Your task to perform on an android device: Clear all items from cart on newegg. Image 0: 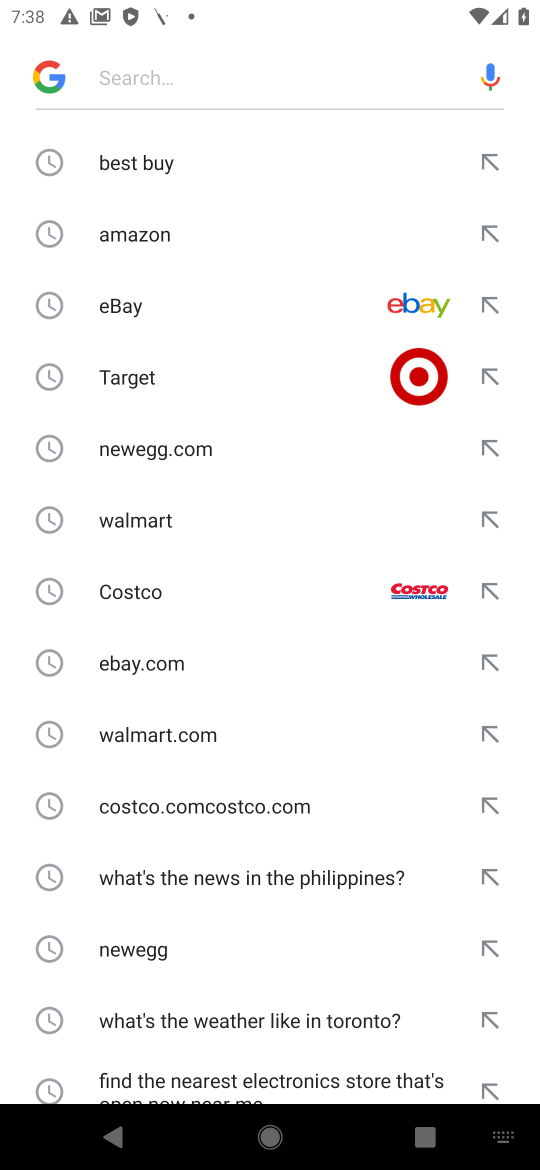
Step 0: click (145, 445)
Your task to perform on an android device: Clear all items from cart on newegg. Image 1: 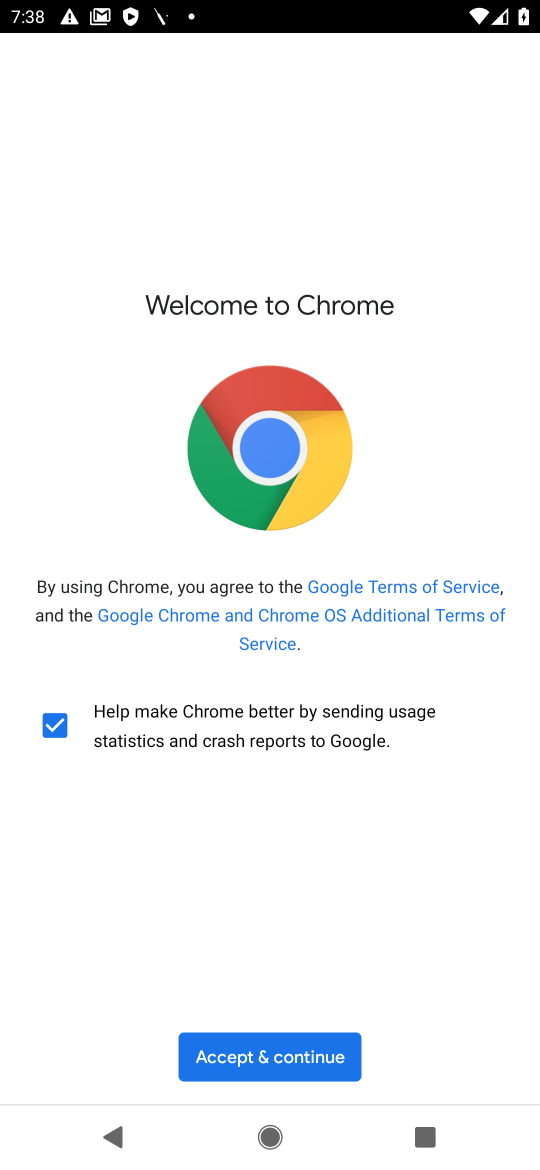
Step 1: click (435, 958)
Your task to perform on an android device: Clear all items from cart on newegg. Image 2: 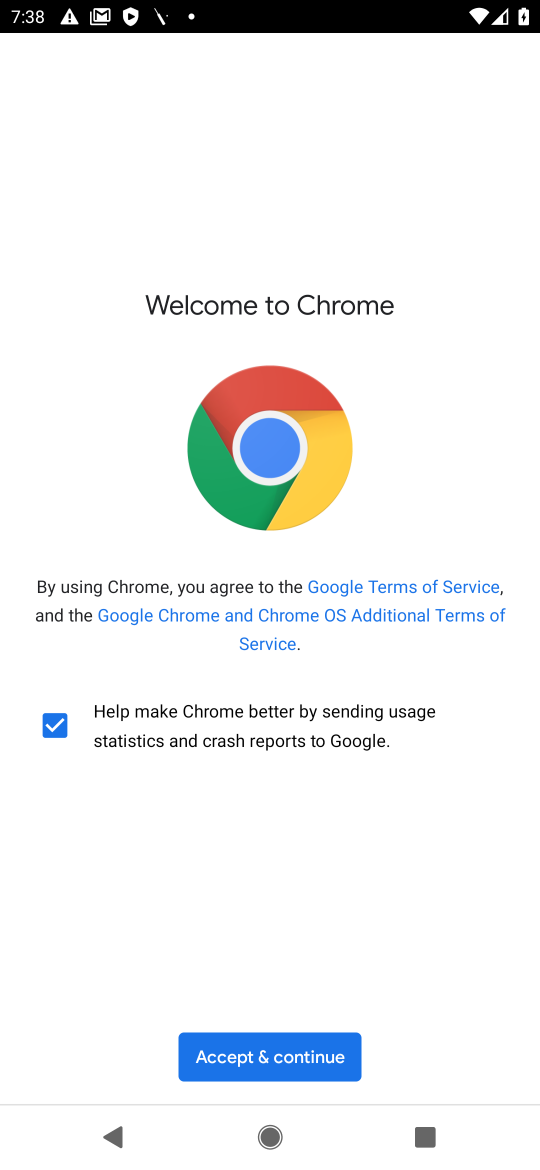
Step 2: click (301, 1039)
Your task to perform on an android device: Clear all items from cart on newegg. Image 3: 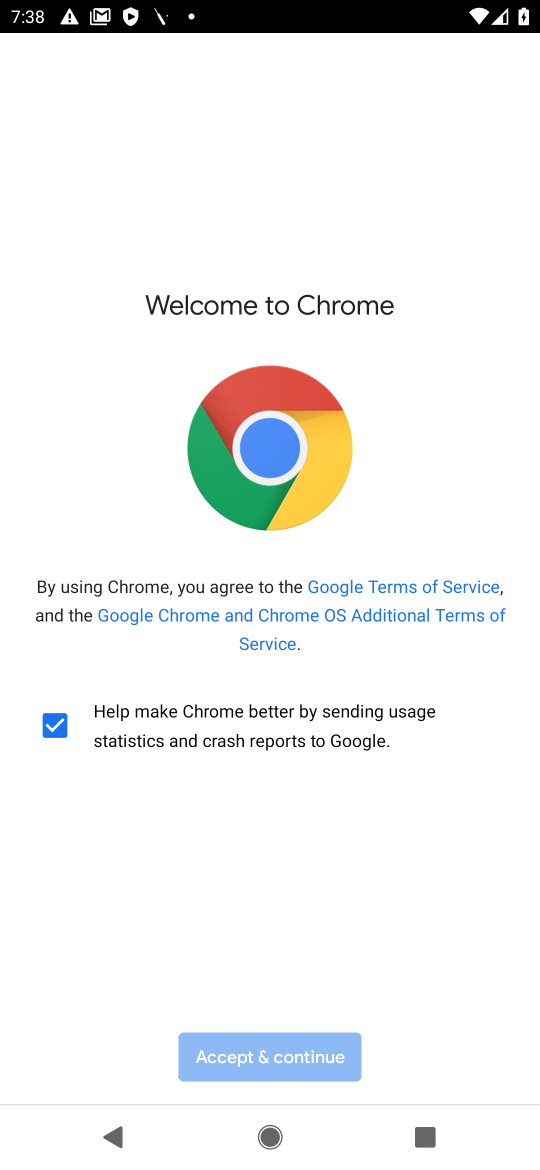
Step 3: click (297, 1056)
Your task to perform on an android device: Clear all items from cart on newegg. Image 4: 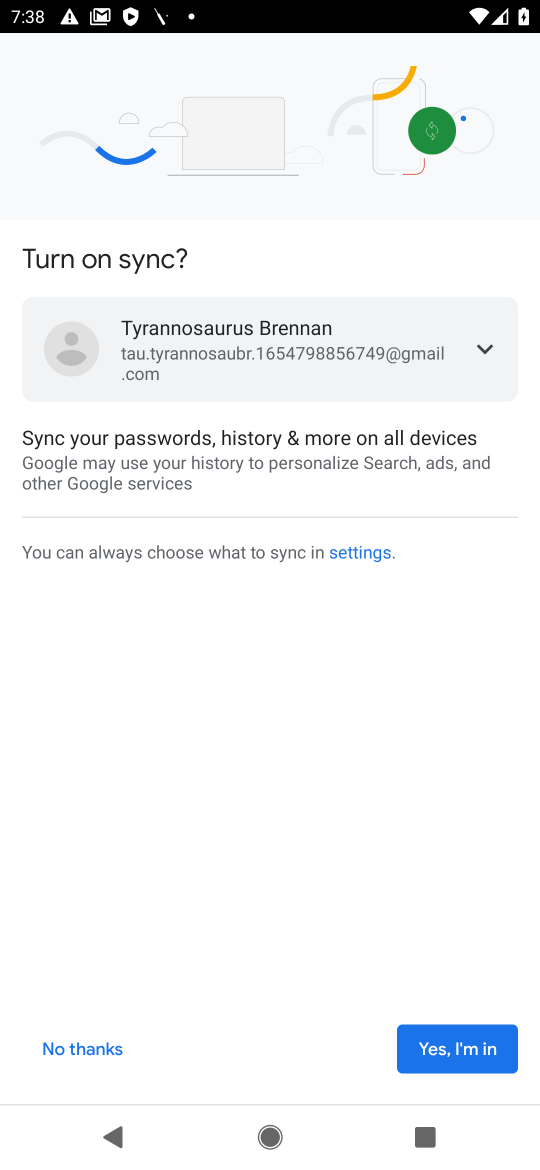
Step 4: click (483, 1038)
Your task to perform on an android device: Clear all items from cart on newegg. Image 5: 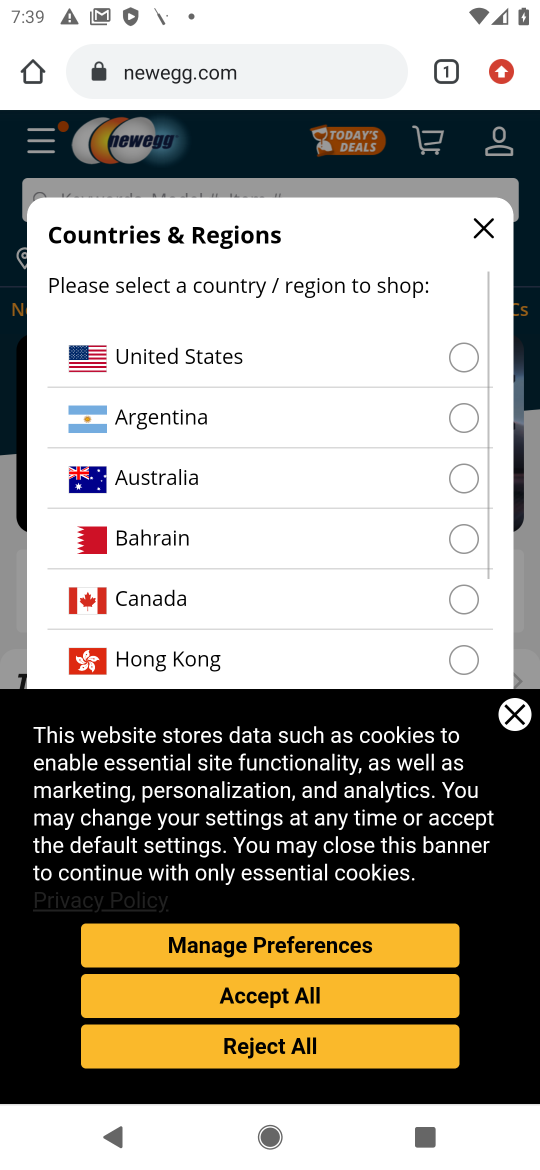
Step 5: click (473, 350)
Your task to perform on an android device: Clear all items from cart on newegg. Image 6: 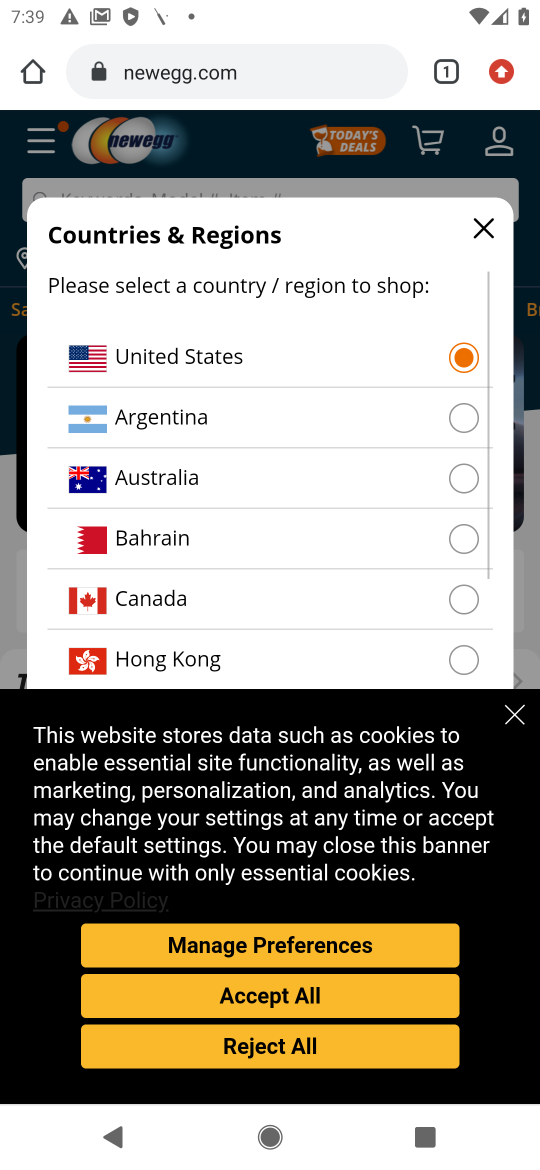
Step 6: type ""
Your task to perform on an android device: Clear all items from cart on newegg. Image 7: 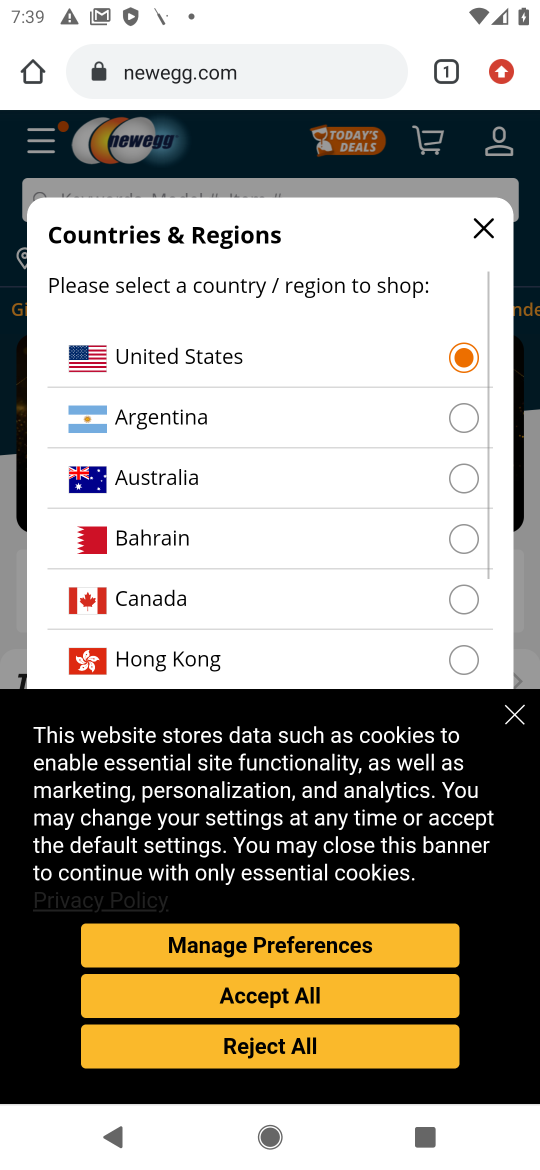
Step 7: click (229, 1049)
Your task to perform on an android device: Clear all items from cart on newegg. Image 8: 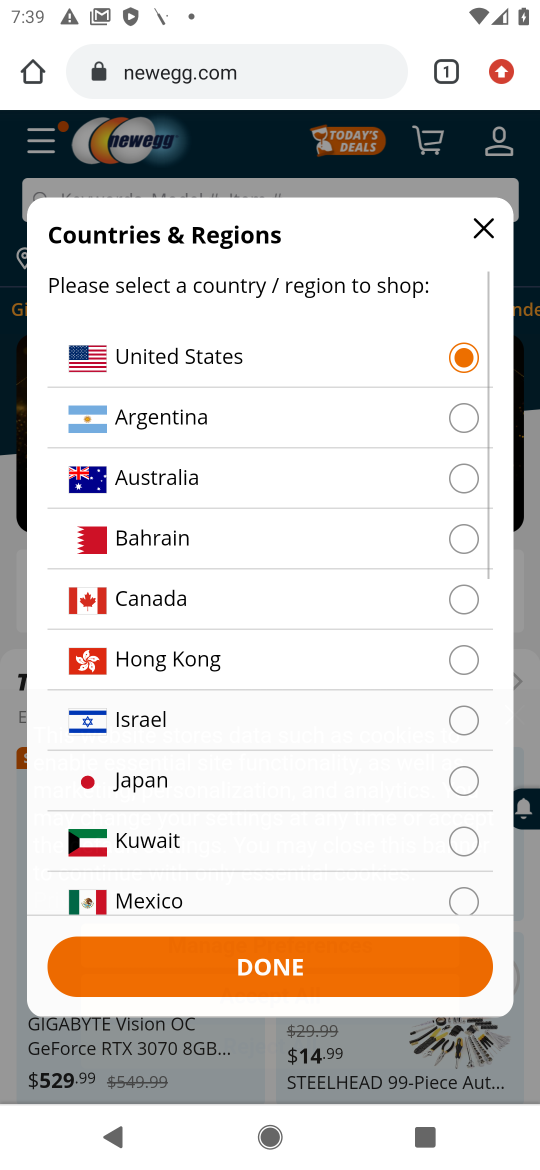
Step 8: click (509, 726)
Your task to perform on an android device: Clear all items from cart on newegg. Image 9: 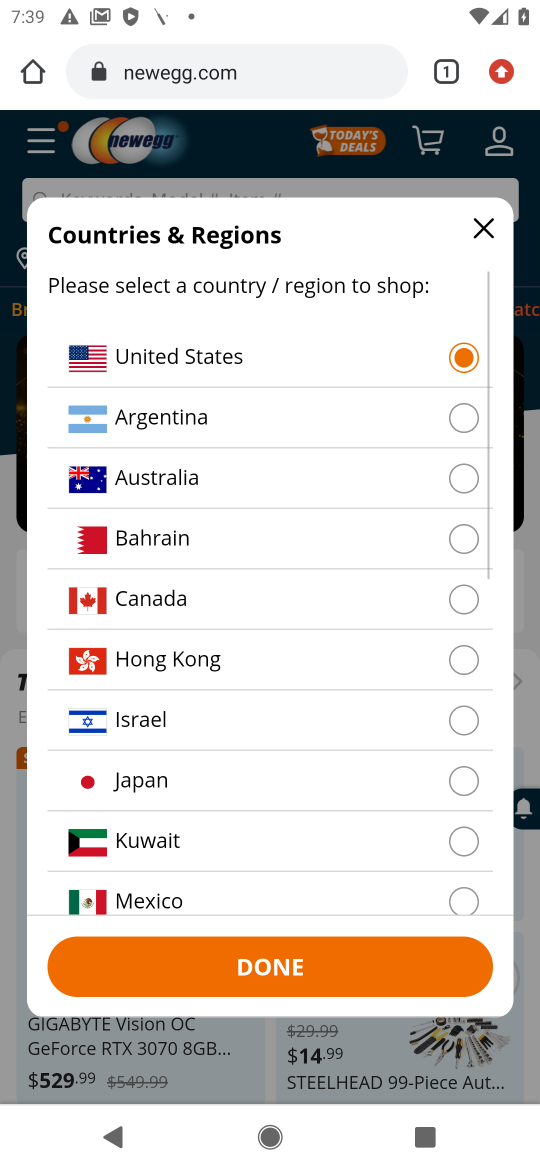
Step 9: click (266, 961)
Your task to perform on an android device: Clear all items from cart on newegg. Image 10: 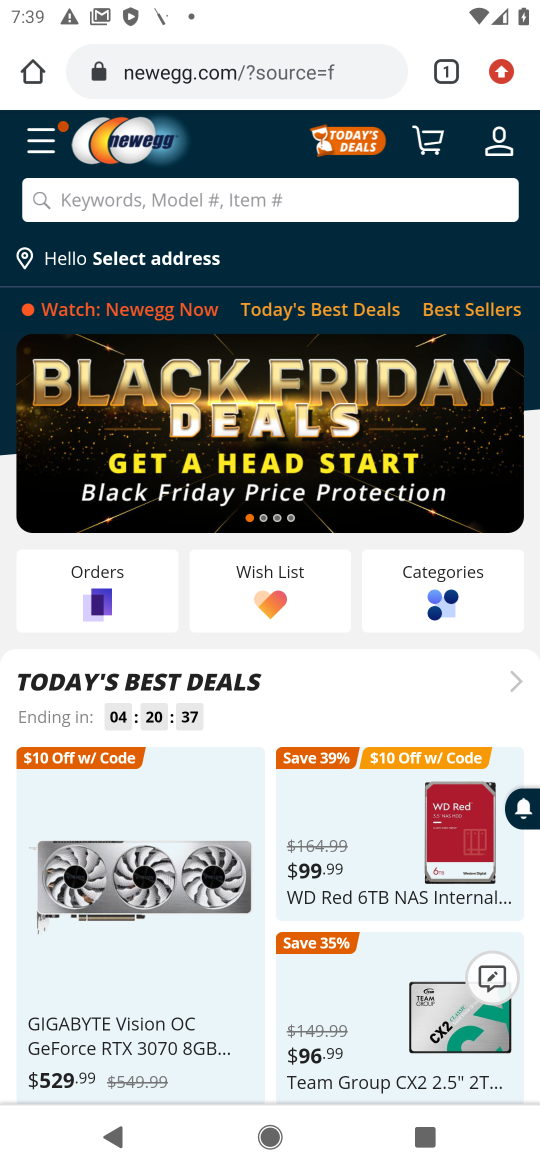
Step 10: click (179, 181)
Your task to perform on an android device: Clear all items from cart on newegg. Image 11: 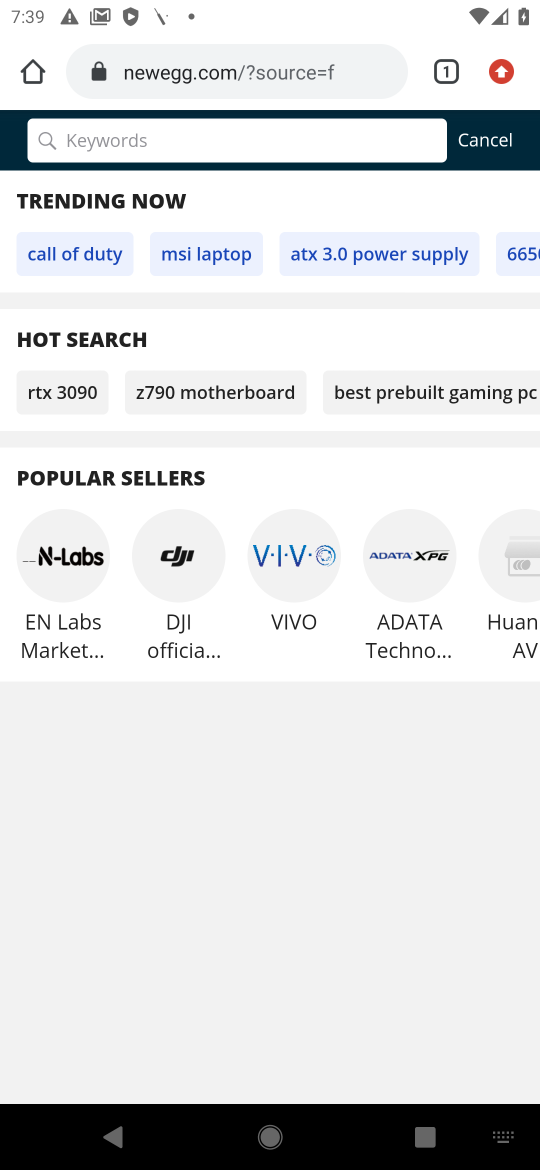
Step 11: press back button
Your task to perform on an android device: Clear all items from cart on newegg. Image 12: 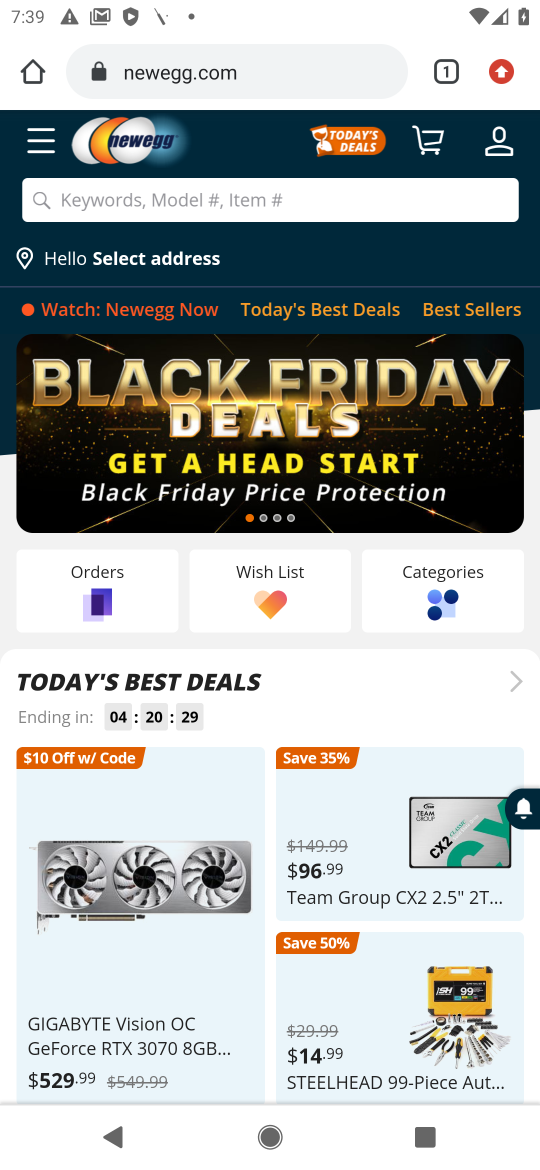
Step 12: click (436, 80)
Your task to perform on an android device: Clear all items from cart on newegg. Image 13: 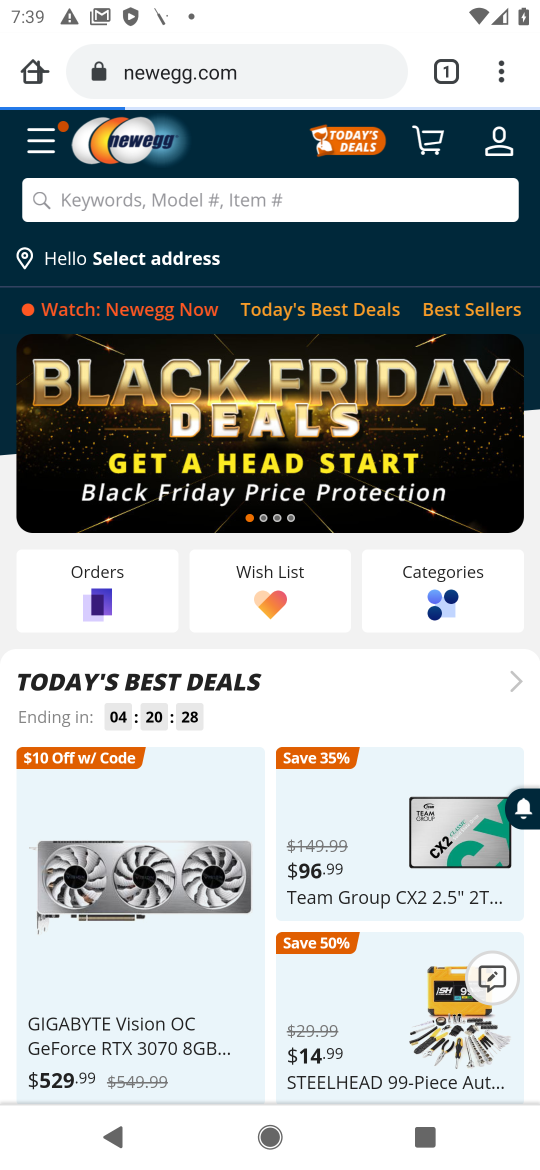
Step 13: click (426, 118)
Your task to perform on an android device: Clear all items from cart on newegg. Image 14: 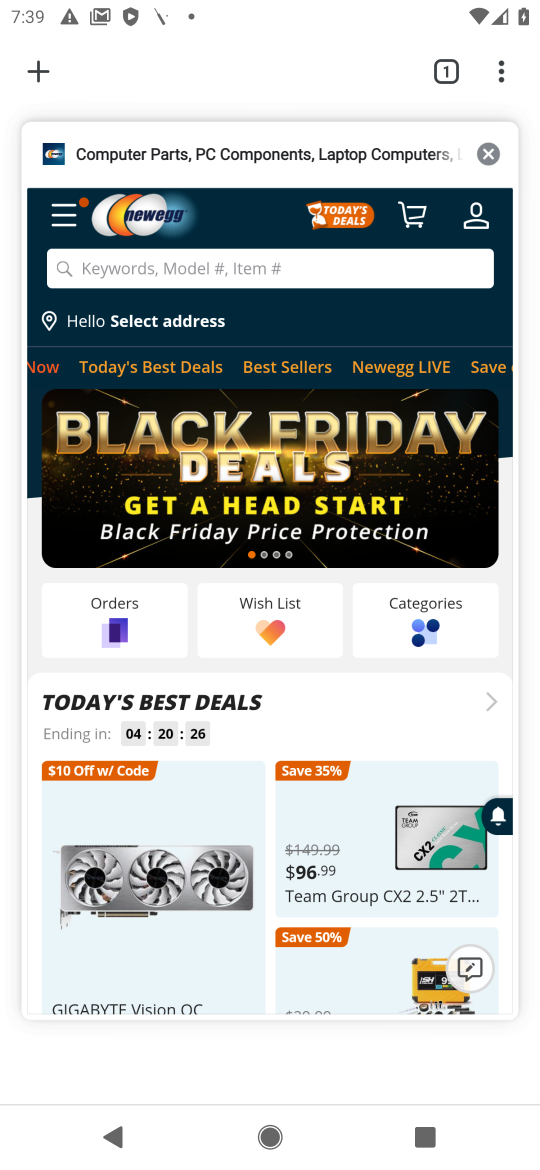
Step 14: click (421, 162)
Your task to perform on an android device: Clear all items from cart on newegg. Image 15: 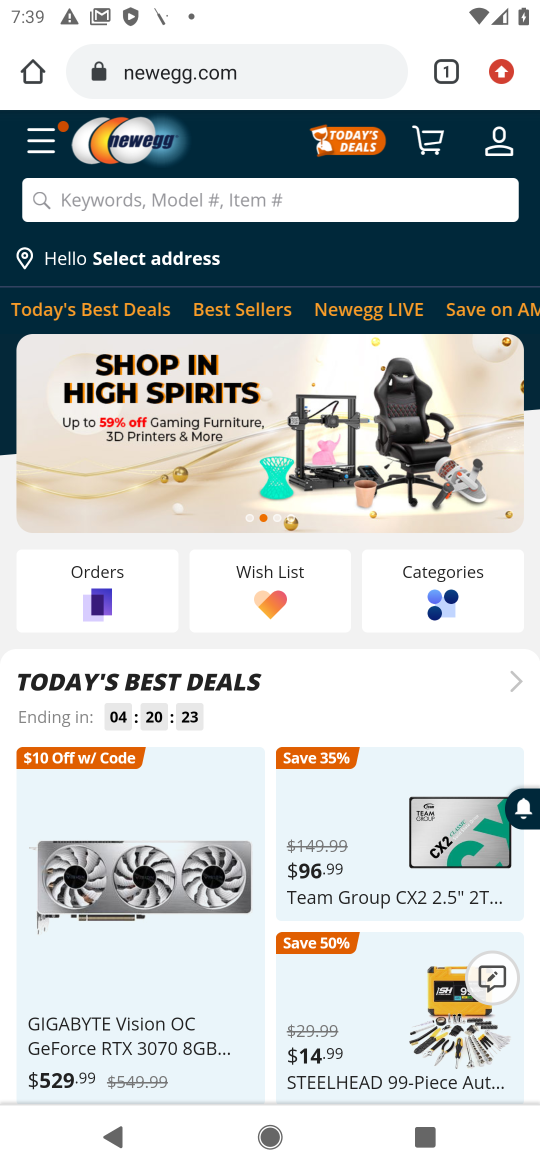
Step 15: click (431, 129)
Your task to perform on an android device: Clear all items from cart on newegg. Image 16: 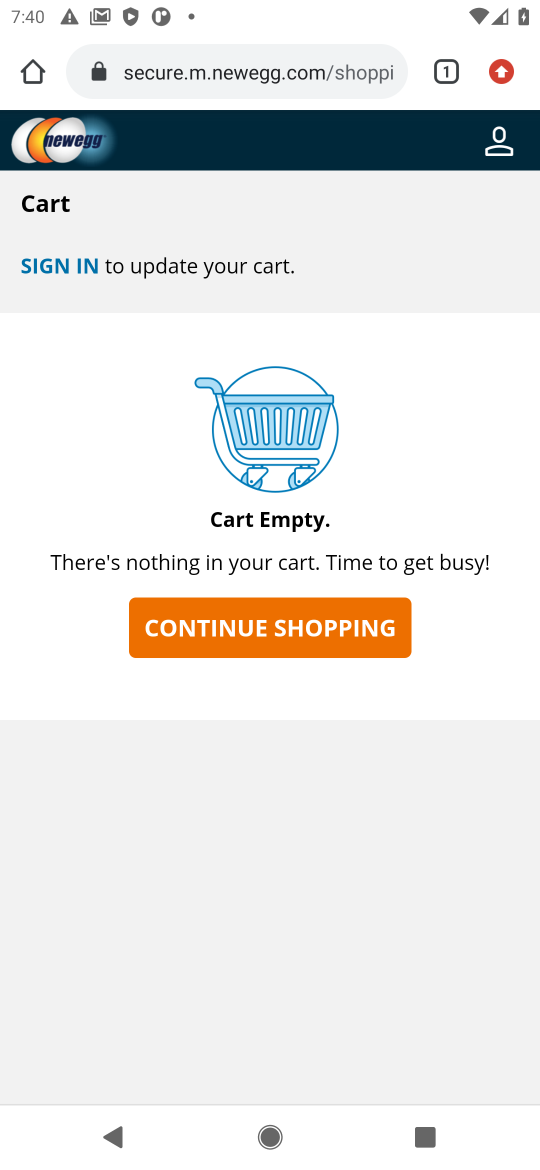
Step 16: task complete